Your task to perform on an android device: change text size in settings app Image 0: 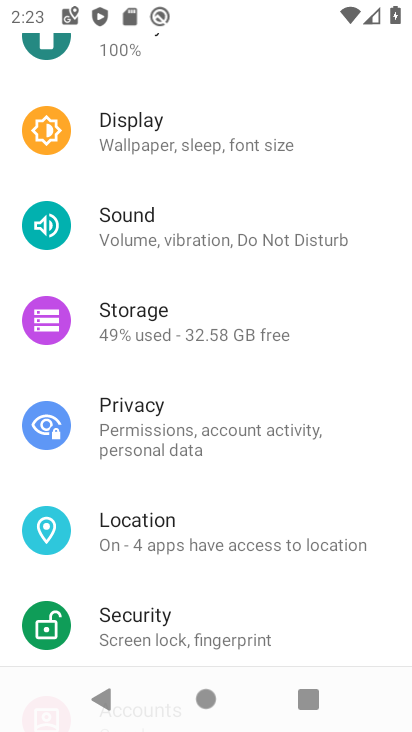
Step 0: drag from (194, 586) to (219, 154)
Your task to perform on an android device: change text size in settings app Image 1: 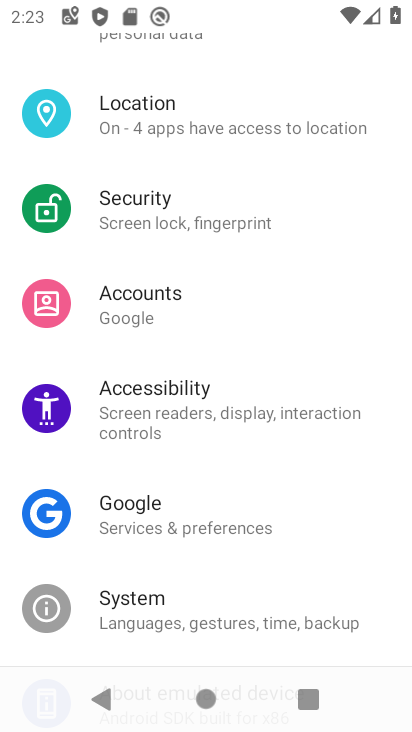
Step 1: drag from (203, 126) to (237, 561)
Your task to perform on an android device: change text size in settings app Image 2: 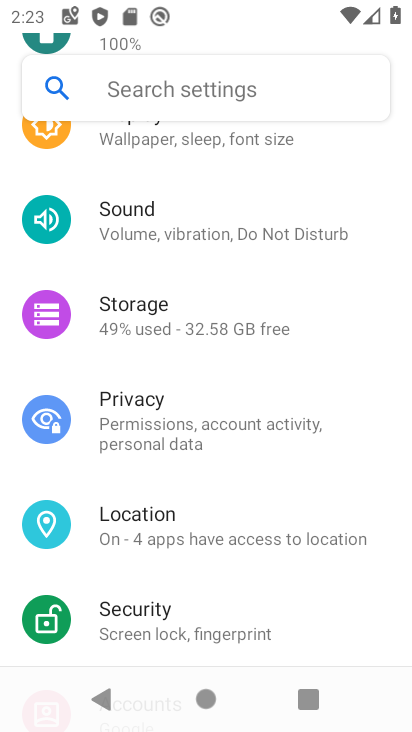
Step 2: drag from (234, 174) to (260, 421)
Your task to perform on an android device: change text size in settings app Image 3: 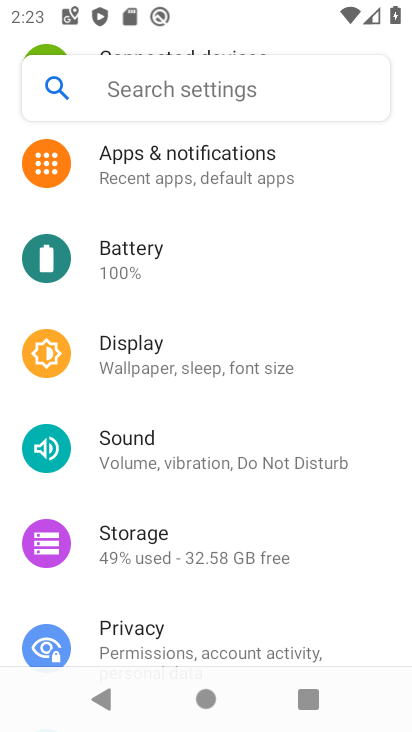
Step 3: click (190, 367)
Your task to perform on an android device: change text size in settings app Image 4: 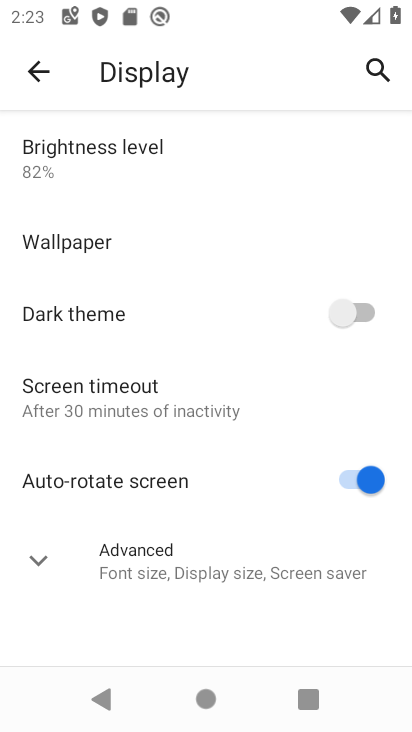
Step 4: click (149, 568)
Your task to perform on an android device: change text size in settings app Image 5: 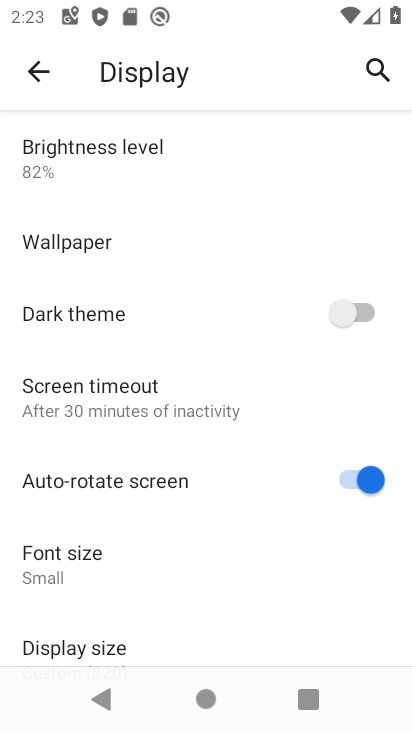
Step 5: click (79, 554)
Your task to perform on an android device: change text size in settings app Image 6: 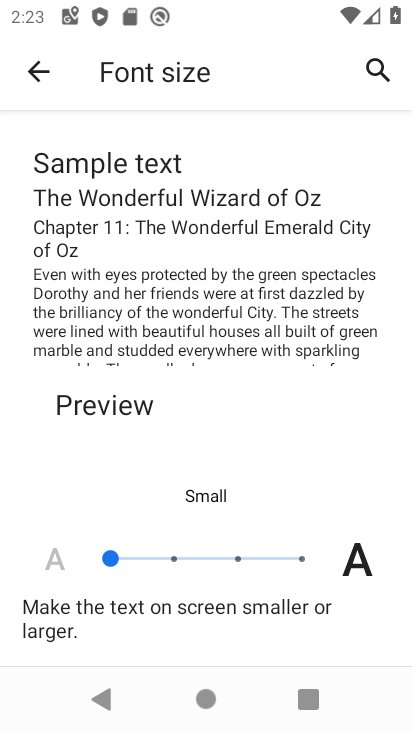
Step 6: click (171, 555)
Your task to perform on an android device: change text size in settings app Image 7: 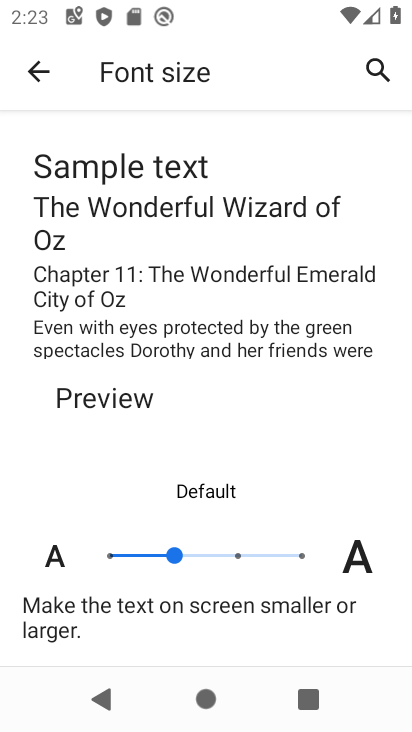
Step 7: task complete